Your task to perform on an android device: Clear the cart on bestbuy. Search for "acer nitro" on bestbuy, select the first entry, and add it to the cart. Image 0: 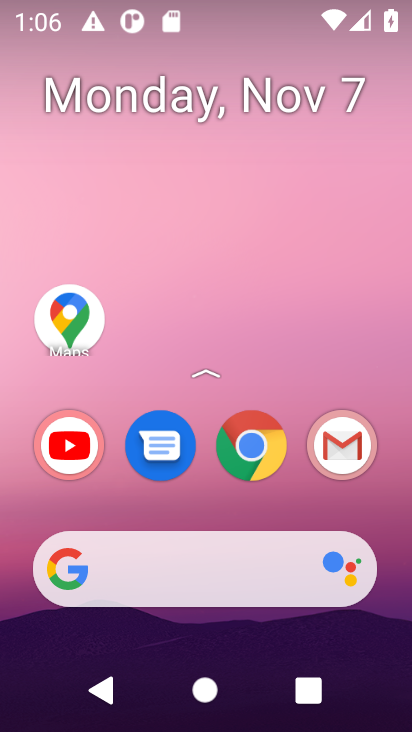
Step 0: click (252, 448)
Your task to perform on an android device: Clear the cart on bestbuy. Search for "acer nitro" on bestbuy, select the first entry, and add it to the cart. Image 1: 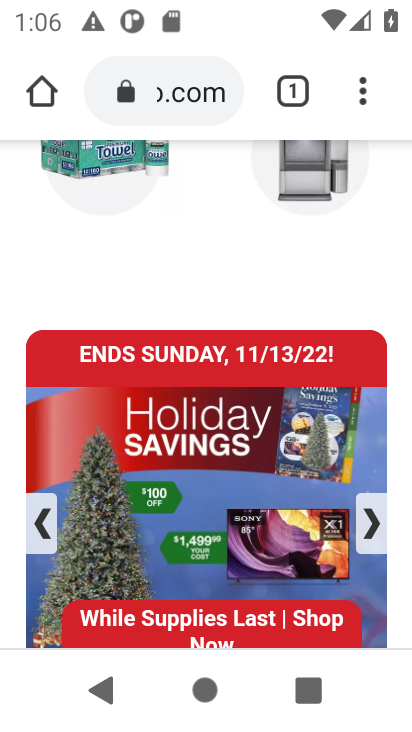
Step 1: click (179, 92)
Your task to perform on an android device: Clear the cart on bestbuy. Search for "acer nitro" on bestbuy, select the first entry, and add it to the cart. Image 2: 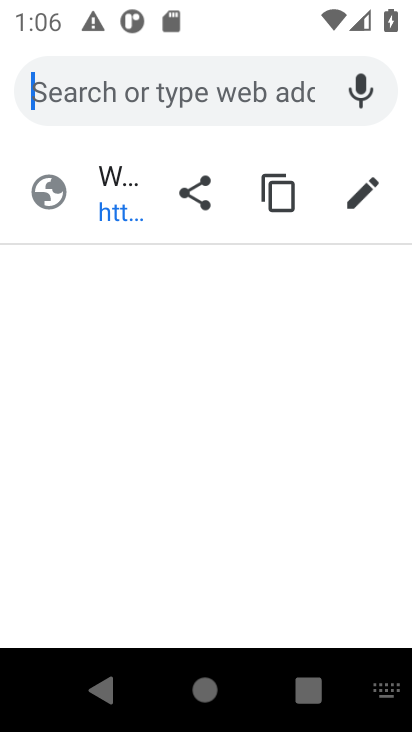
Step 2: type "bestbuy"
Your task to perform on an android device: Clear the cart on bestbuy. Search for "acer nitro" on bestbuy, select the first entry, and add it to the cart. Image 3: 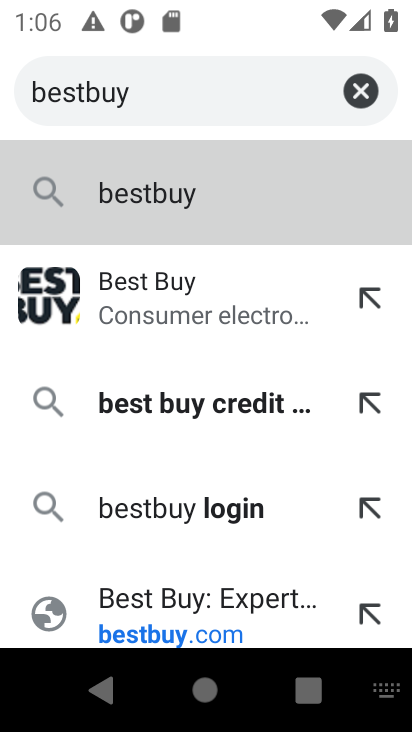
Step 3: click (150, 198)
Your task to perform on an android device: Clear the cart on bestbuy. Search for "acer nitro" on bestbuy, select the first entry, and add it to the cart. Image 4: 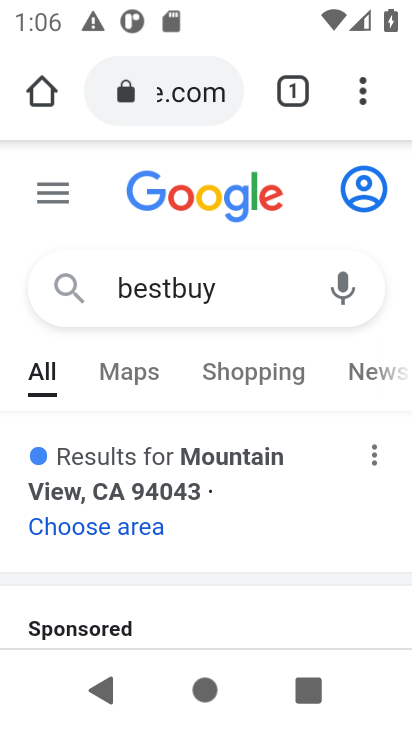
Step 4: drag from (249, 449) to (272, 207)
Your task to perform on an android device: Clear the cart on bestbuy. Search for "acer nitro" on bestbuy, select the first entry, and add it to the cart. Image 5: 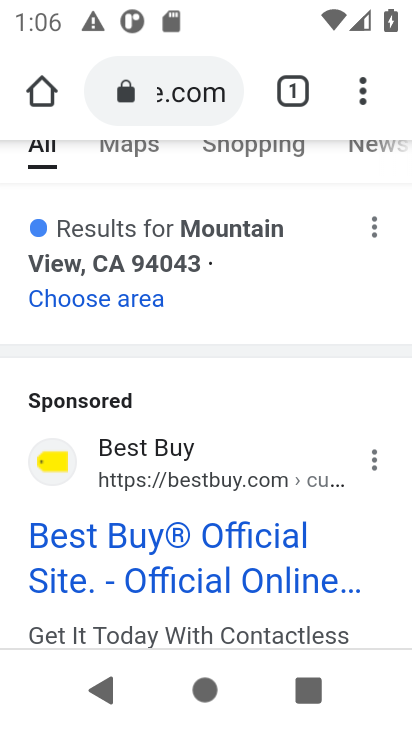
Step 5: click (181, 468)
Your task to perform on an android device: Clear the cart on bestbuy. Search for "acer nitro" on bestbuy, select the first entry, and add it to the cart. Image 6: 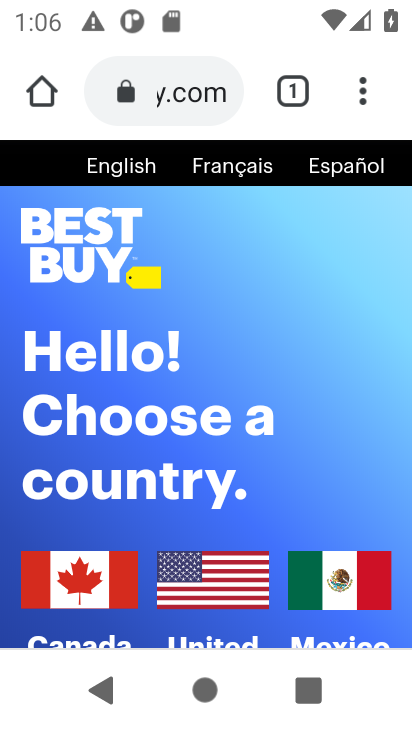
Step 6: click (223, 592)
Your task to perform on an android device: Clear the cart on bestbuy. Search for "acer nitro" on bestbuy, select the first entry, and add it to the cart. Image 7: 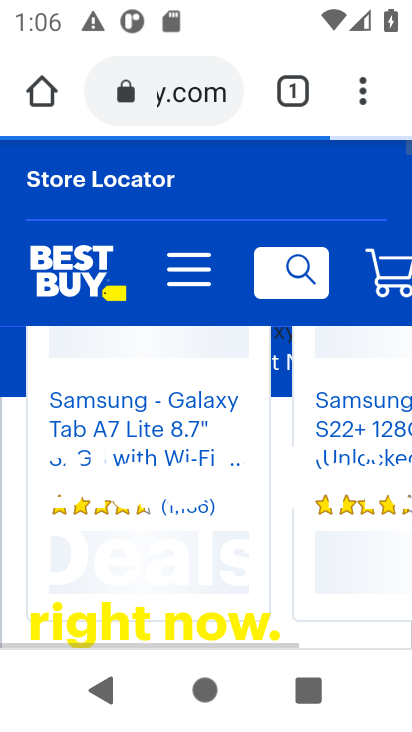
Step 7: click (390, 267)
Your task to perform on an android device: Clear the cart on bestbuy. Search for "acer nitro" on bestbuy, select the first entry, and add it to the cart. Image 8: 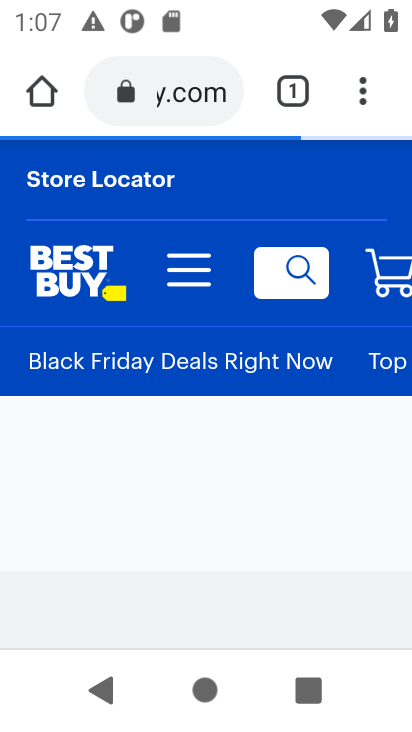
Step 8: drag from (330, 434) to (308, 112)
Your task to perform on an android device: Clear the cart on bestbuy. Search for "acer nitro" on bestbuy, select the first entry, and add it to the cart. Image 9: 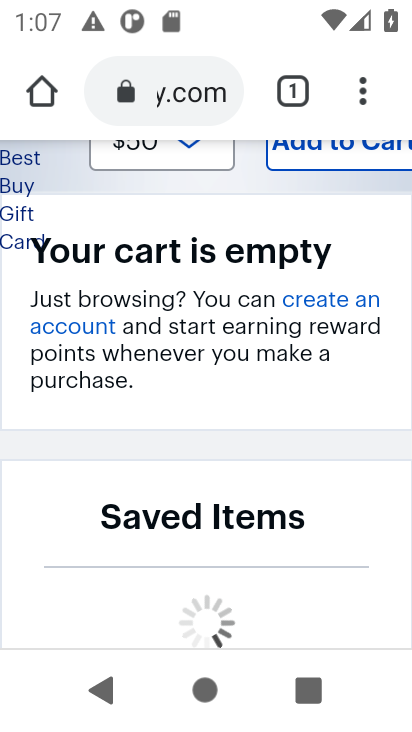
Step 9: drag from (284, 234) to (332, 551)
Your task to perform on an android device: Clear the cart on bestbuy. Search for "acer nitro" on bestbuy, select the first entry, and add it to the cart. Image 10: 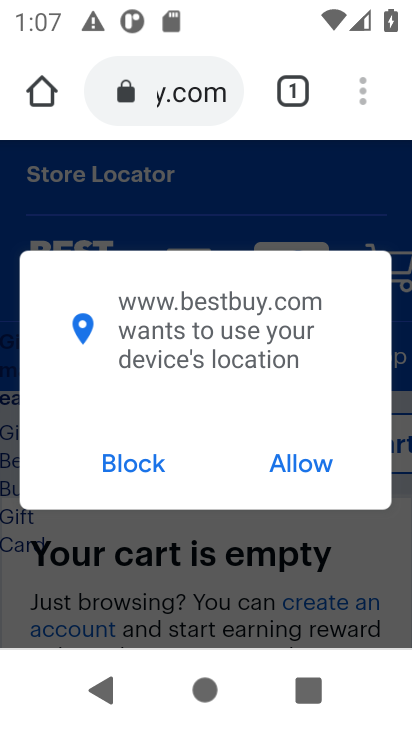
Step 10: click (151, 465)
Your task to perform on an android device: Clear the cart on bestbuy. Search for "acer nitro" on bestbuy, select the first entry, and add it to the cart. Image 11: 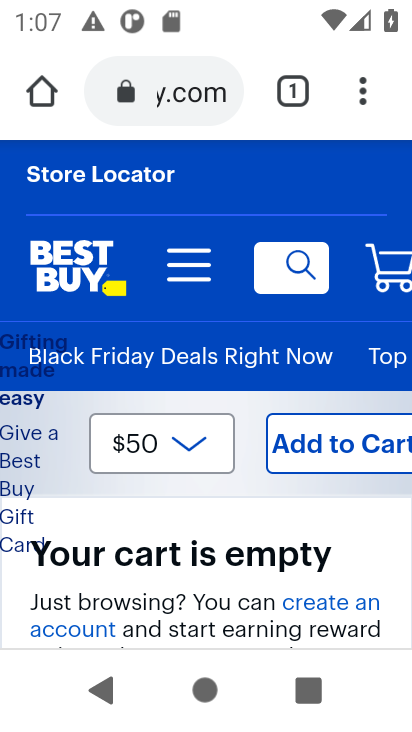
Step 11: click (294, 266)
Your task to perform on an android device: Clear the cart on bestbuy. Search for "acer nitro" on bestbuy, select the first entry, and add it to the cart. Image 12: 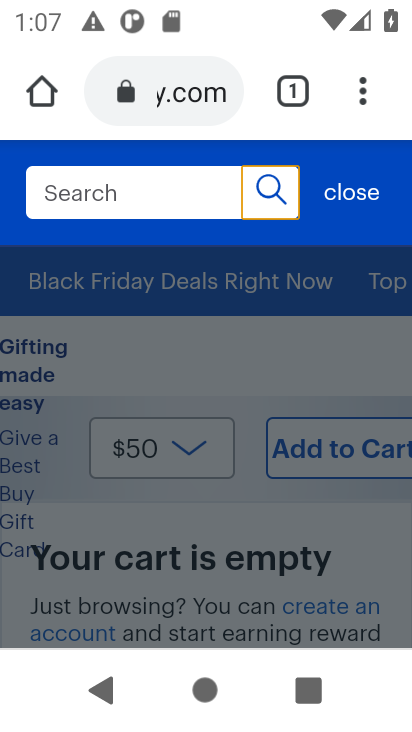
Step 12: click (217, 186)
Your task to perform on an android device: Clear the cart on bestbuy. Search for "acer nitro" on bestbuy, select the first entry, and add it to the cart. Image 13: 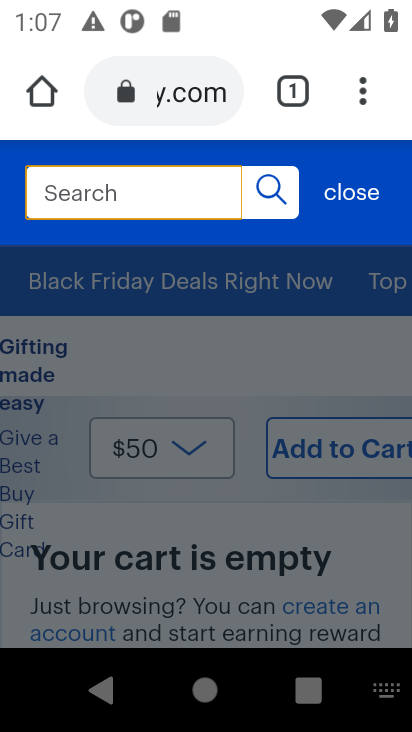
Step 13: type "acer nitro"
Your task to perform on an android device: Clear the cart on bestbuy. Search for "acer nitro" on bestbuy, select the first entry, and add it to the cart. Image 14: 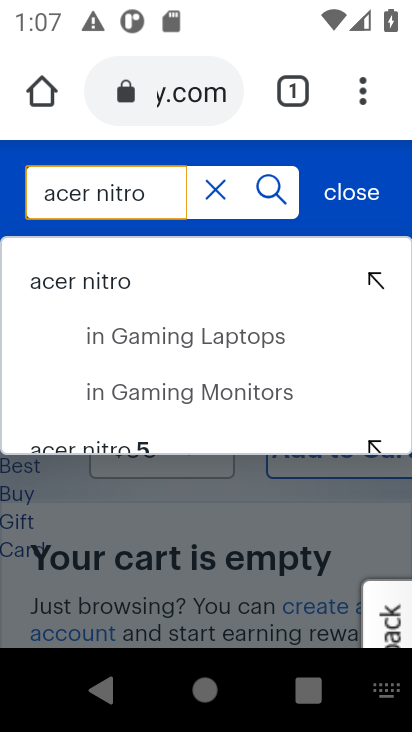
Step 14: click (114, 333)
Your task to perform on an android device: Clear the cart on bestbuy. Search for "acer nitro" on bestbuy, select the first entry, and add it to the cart. Image 15: 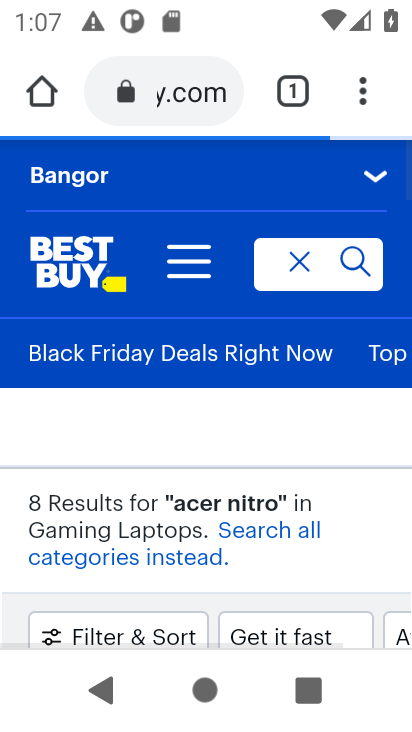
Step 15: drag from (326, 514) to (405, 195)
Your task to perform on an android device: Clear the cart on bestbuy. Search for "acer nitro" on bestbuy, select the first entry, and add it to the cart. Image 16: 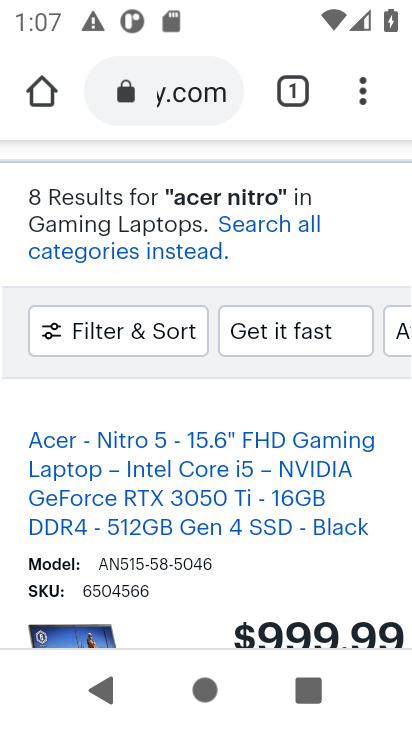
Step 16: click (132, 439)
Your task to perform on an android device: Clear the cart on bestbuy. Search for "acer nitro" on bestbuy, select the first entry, and add it to the cart. Image 17: 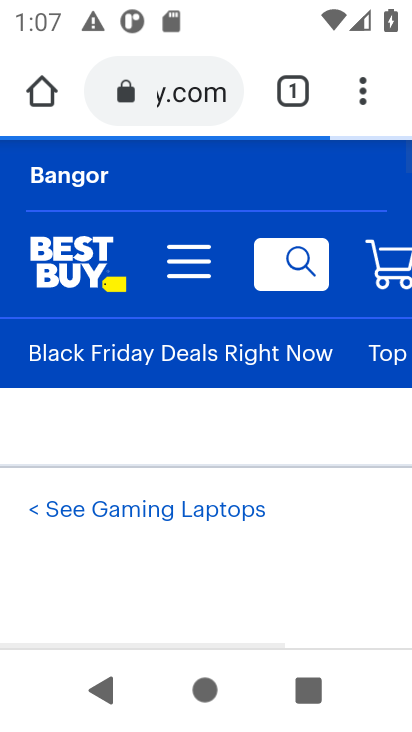
Step 17: drag from (310, 550) to (330, 248)
Your task to perform on an android device: Clear the cart on bestbuy. Search for "acer nitro" on bestbuy, select the first entry, and add it to the cart. Image 18: 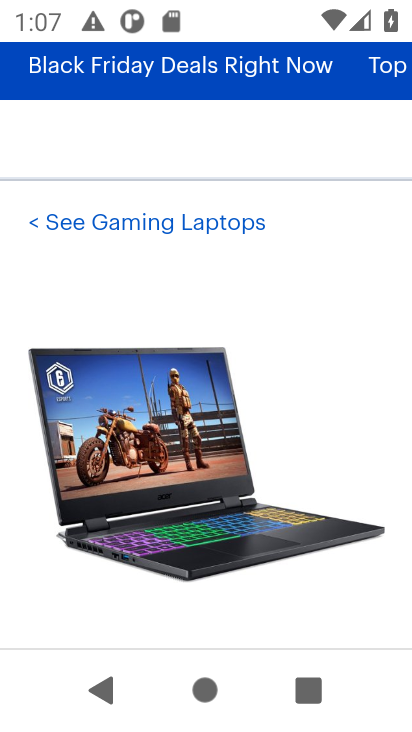
Step 18: drag from (285, 416) to (310, 167)
Your task to perform on an android device: Clear the cart on bestbuy. Search for "acer nitro" on bestbuy, select the first entry, and add it to the cart. Image 19: 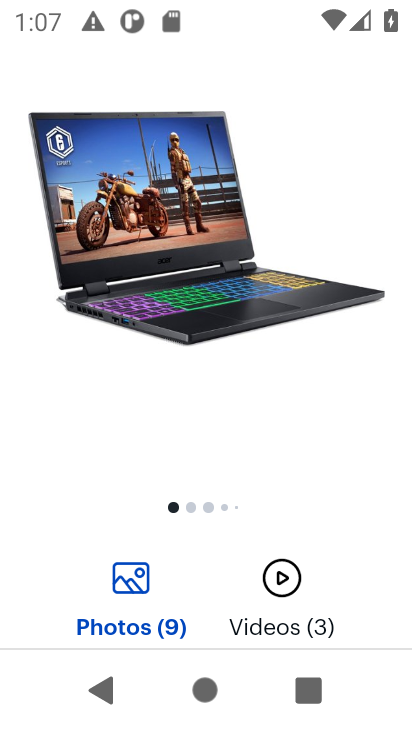
Step 19: drag from (305, 499) to (327, 207)
Your task to perform on an android device: Clear the cart on bestbuy. Search for "acer nitro" on bestbuy, select the first entry, and add it to the cart. Image 20: 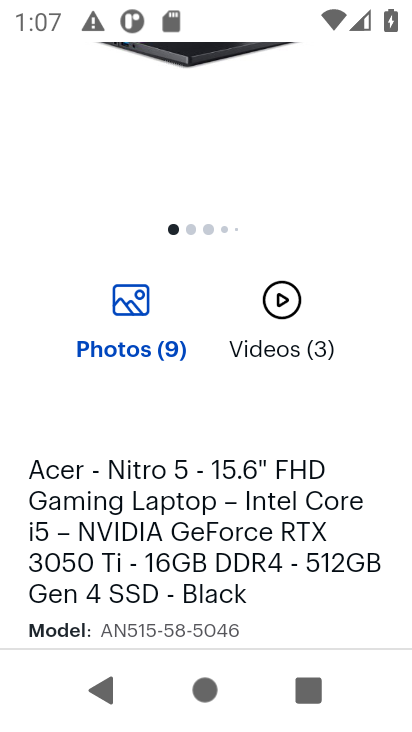
Step 20: drag from (328, 495) to (345, 193)
Your task to perform on an android device: Clear the cart on bestbuy. Search for "acer nitro" on bestbuy, select the first entry, and add it to the cart. Image 21: 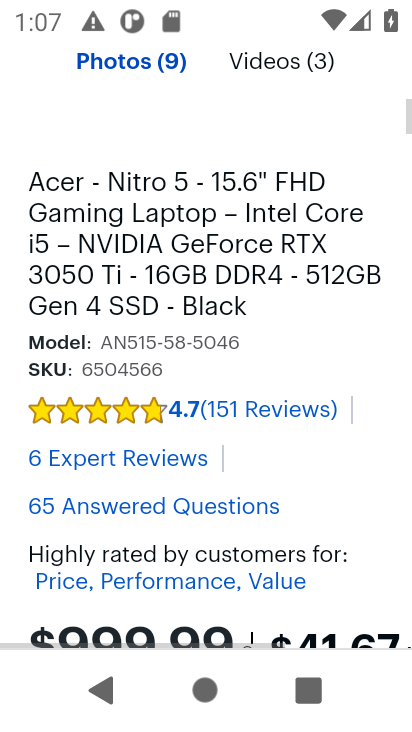
Step 21: drag from (287, 527) to (314, 180)
Your task to perform on an android device: Clear the cart on bestbuy. Search for "acer nitro" on bestbuy, select the first entry, and add it to the cart. Image 22: 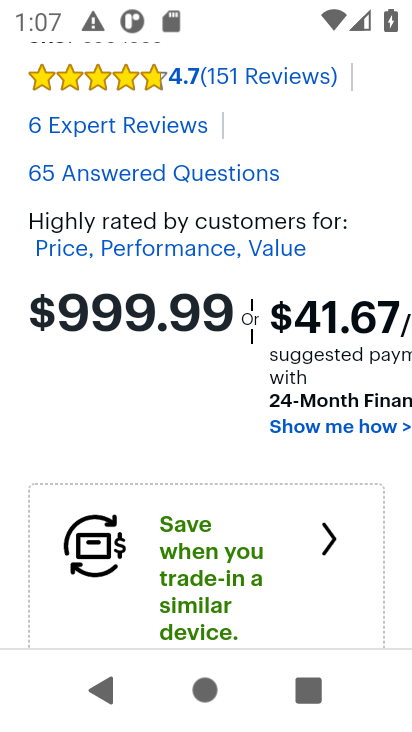
Step 22: drag from (272, 483) to (307, 199)
Your task to perform on an android device: Clear the cart on bestbuy. Search for "acer nitro" on bestbuy, select the first entry, and add it to the cart. Image 23: 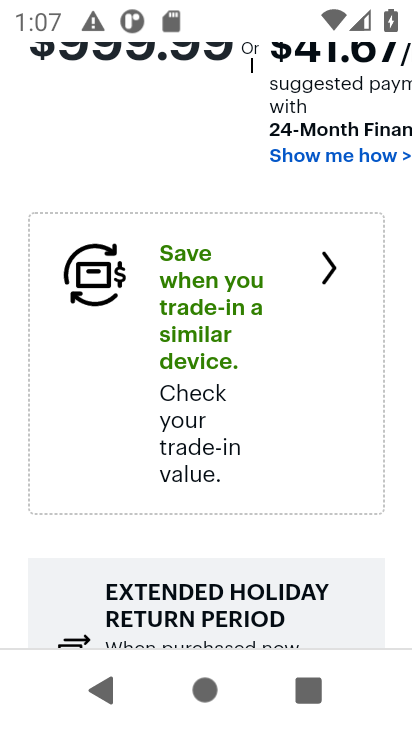
Step 23: drag from (311, 580) to (282, 259)
Your task to perform on an android device: Clear the cart on bestbuy. Search for "acer nitro" on bestbuy, select the first entry, and add it to the cart. Image 24: 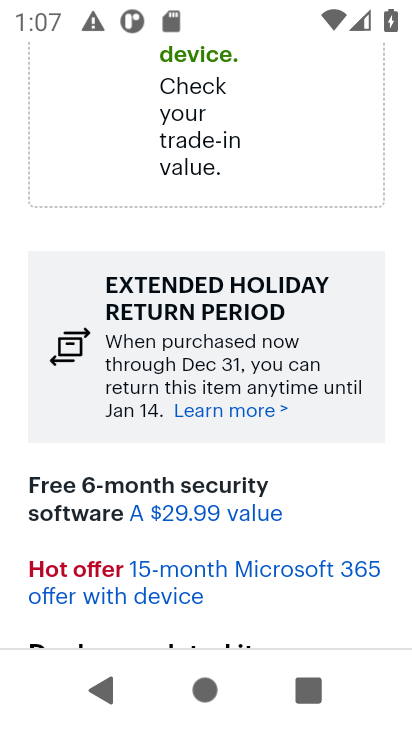
Step 24: drag from (280, 537) to (288, 163)
Your task to perform on an android device: Clear the cart on bestbuy. Search for "acer nitro" on bestbuy, select the first entry, and add it to the cart. Image 25: 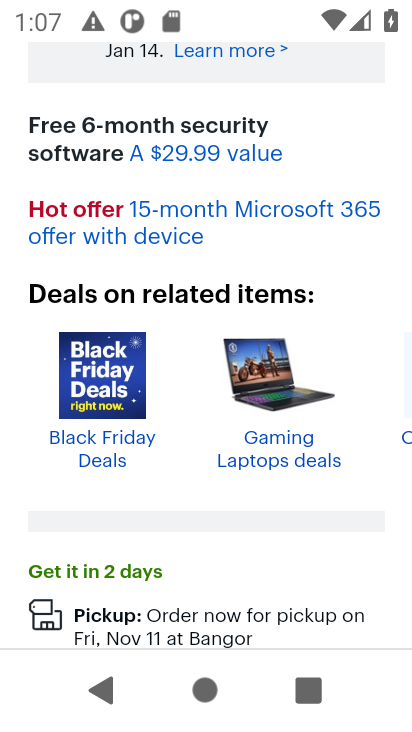
Step 25: drag from (316, 495) to (392, 126)
Your task to perform on an android device: Clear the cart on bestbuy. Search for "acer nitro" on bestbuy, select the first entry, and add it to the cart. Image 26: 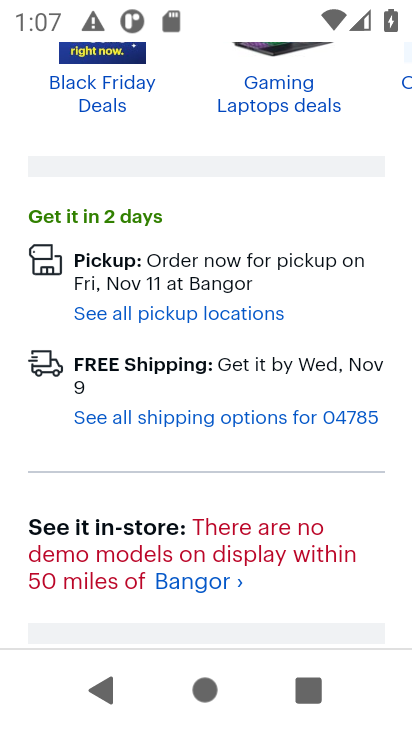
Step 26: drag from (316, 480) to (339, 156)
Your task to perform on an android device: Clear the cart on bestbuy. Search for "acer nitro" on bestbuy, select the first entry, and add it to the cart. Image 27: 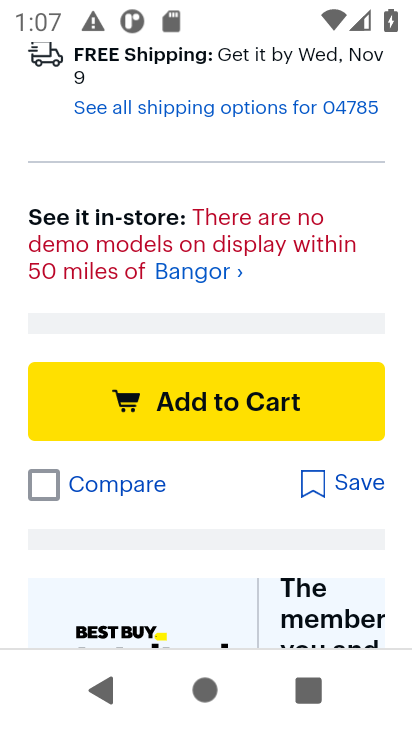
Step 27: click (215, 399)
Your task to perform on an android device: Clear the cart on bestbuy. Search for "acer nitro" on bestbuy, select the first entry, and add it to the cart. Image 28: 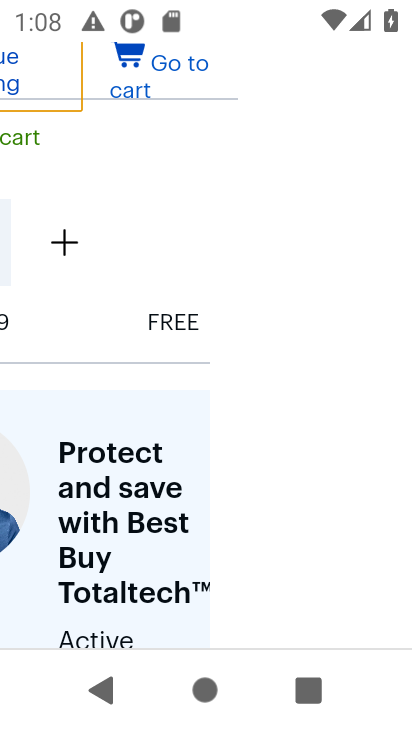
Step 28: task complete